Your task to perform on an android device: create a new album in the google photos Image 0: 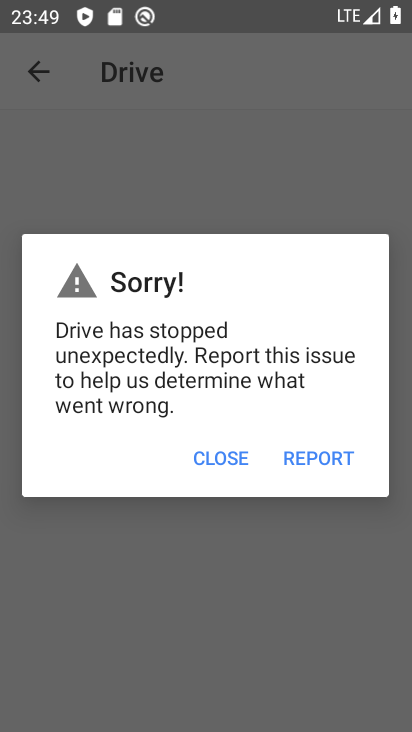
Step 0: press home button
Your task to perform on an android device: create a new album in the google photos Image 1: 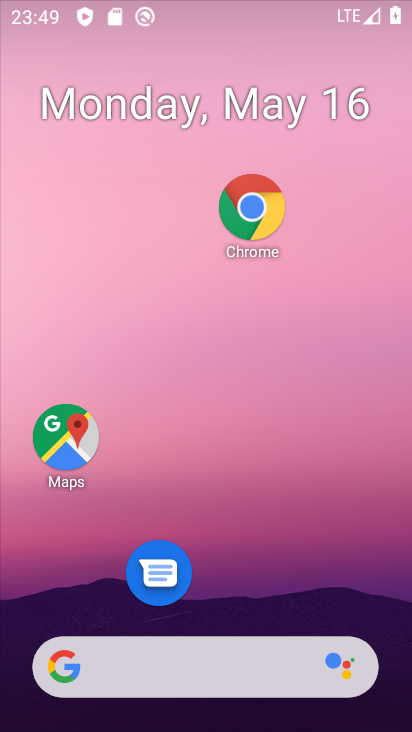
Step 1: drag from (281, 690) to (250, 114)
Your task to perform on an android device: create a new album in the google photos Image 2: 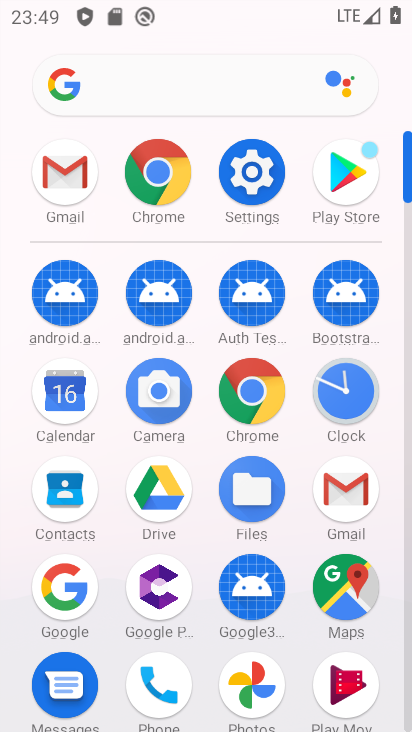
Step 2: click (250, 692)
Your task to perform on an android device: create a new album in the google photos Image 3: 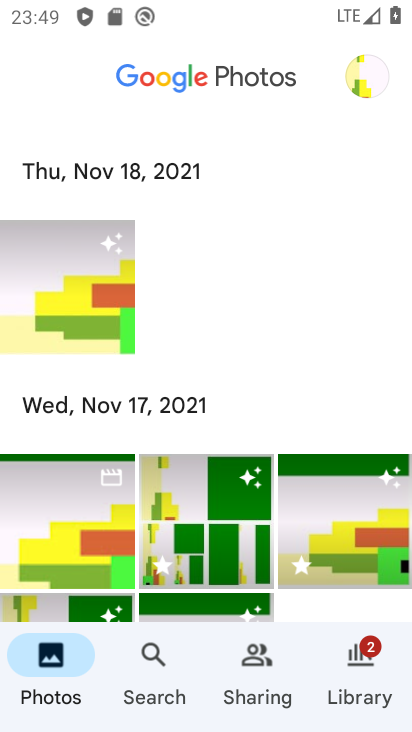
Step 3: click (358, 661)
Your task to perform on an android device: create a new album in the google photos Image 4: 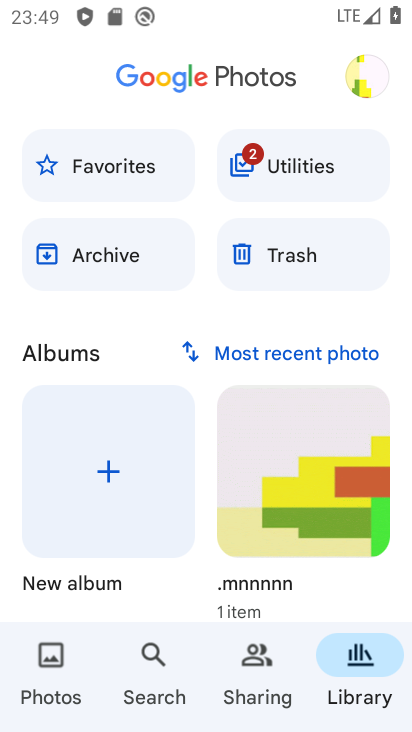
Step 4: click (371, 65)
Your task to perform on an android device: create a new album in the google photos Image 5: 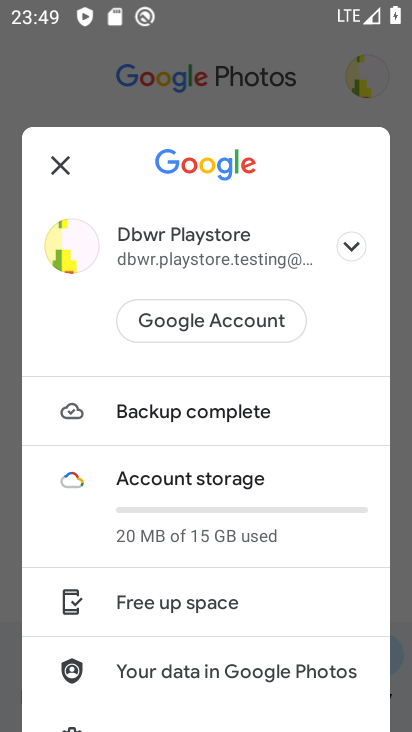
Step 5: click (49, 154)
Your task to perform on an android device: create a new album in the google photos Image 6: 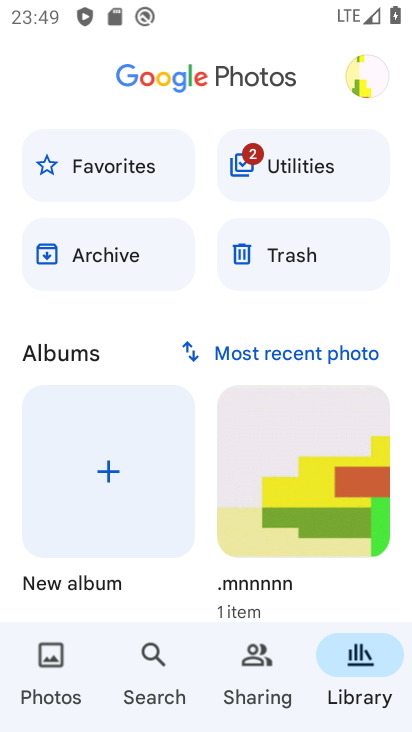
Step 6: click (66, 460)
Your task to perform on an android device: create a new album in the google photos Image 7: 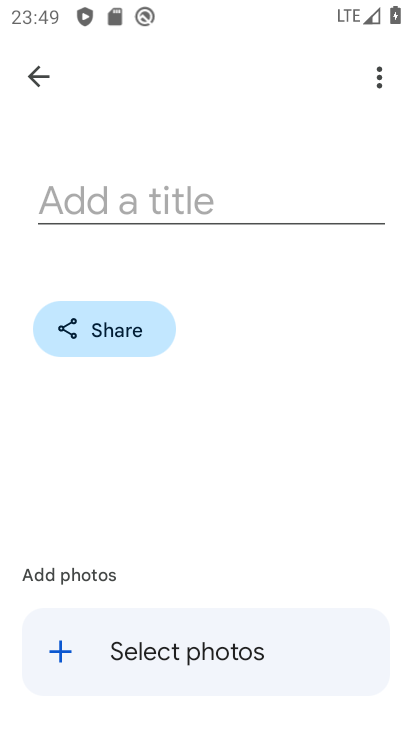
Step 7: click (166, 212)
Your task to perform on an android device: create a new album in the google photos Image 8: 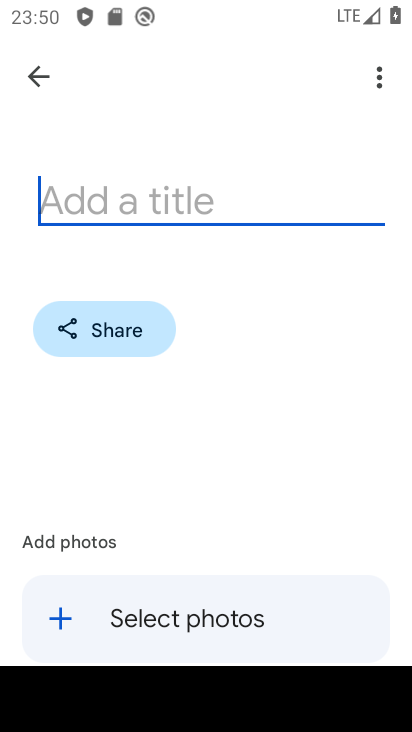
Step 8: type "jjkjhjkjvjhbjh"
Your task to perform on an android device: create a new album in the google photos Image 9: 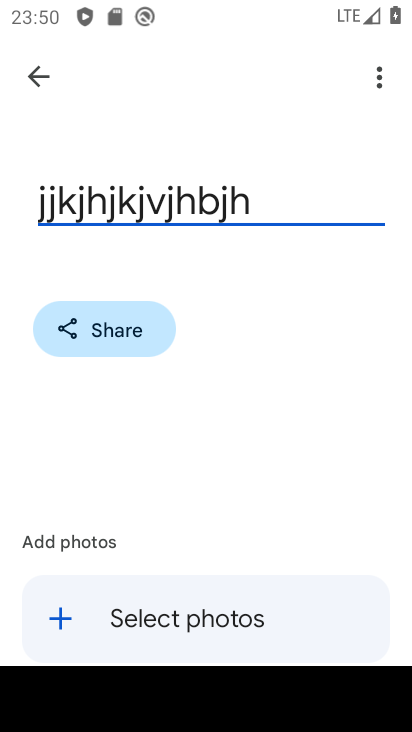
Step 9: click (63, 620)
Your task to perform on an android device: create a new album in the google photos Image 10: 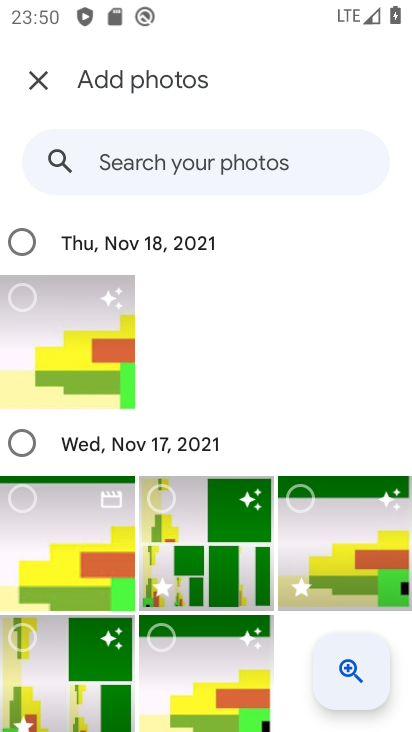
Step 10: click (158, 494)
Your task to perform on an android device: create a new album in the google photos Image 11: 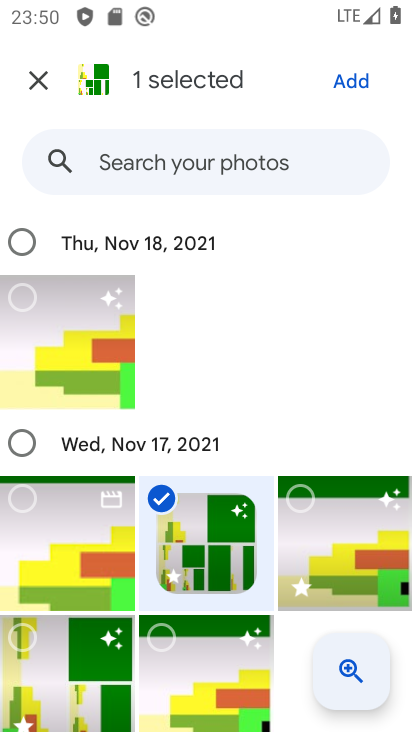
Step 11: click (348, 84)
Your task to perform on an android device: create a new album in the google photos Image 12: 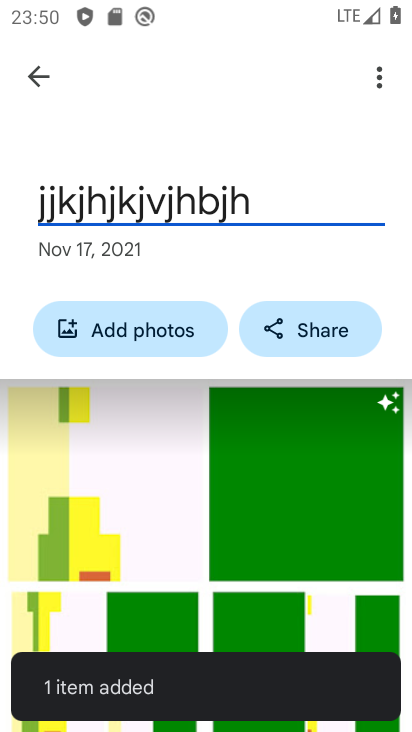
Step 12: task complete